Your task to perform on an android device: turn on improve location accuracy Image 0: 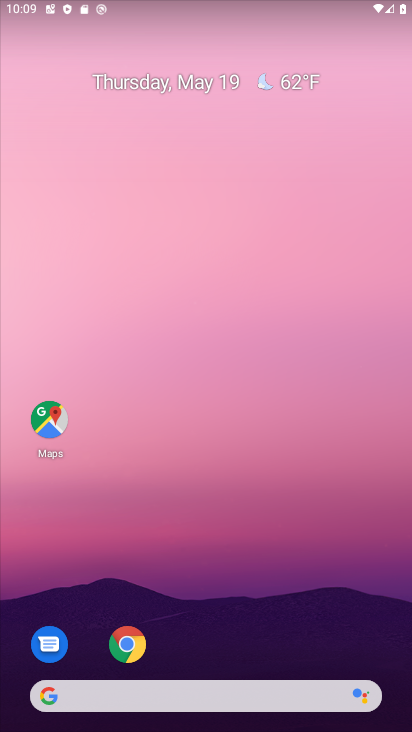
Step 0: drag from (264, 618) to (227, 185)
Your task to perform on an android device: turn on improve location accuracy Image 1: 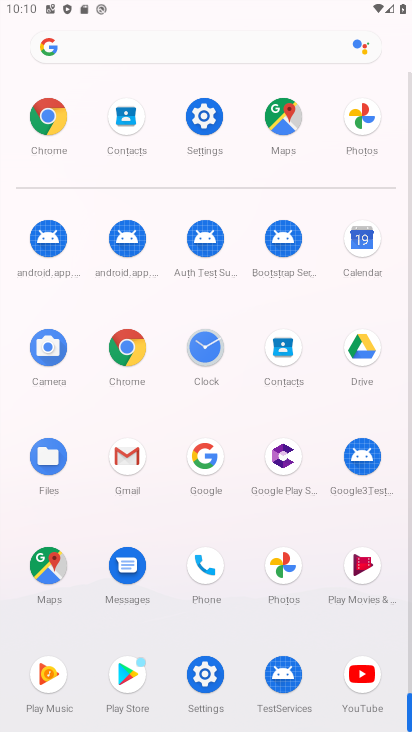
Step 1: click (201, 135)
Your task to perform on an android device: turn on improve location accuracy Image 2: 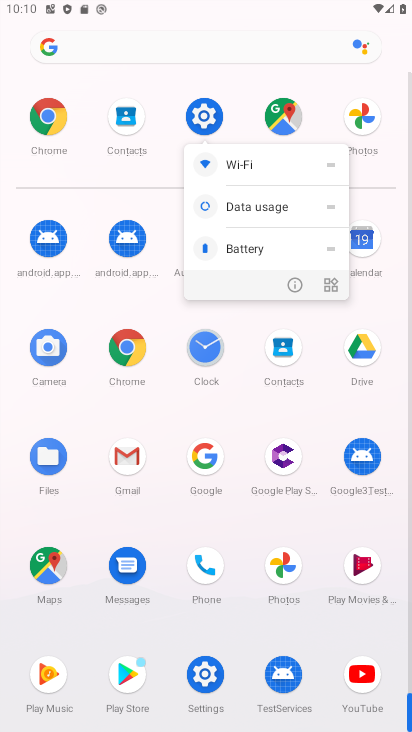
Step 2: click (205, 131)
Your task to perform on an android device: turn on improve location accuracy Image 3: 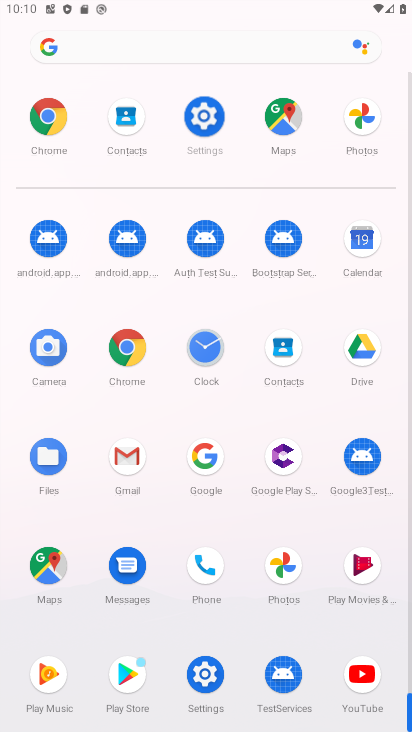
Step 3: click (205, 130)
Your task to perform on an android device: turn on improve location accuracy Image 4: 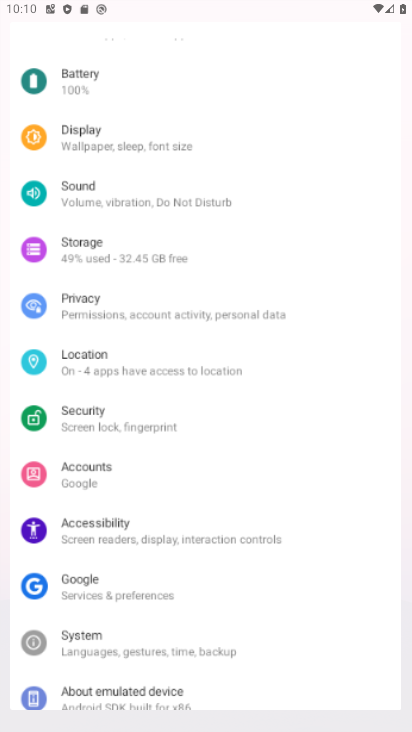
Step 4: click (205, 129)
Your task to perform on an android device: turn on improve location accuracy Image 5: 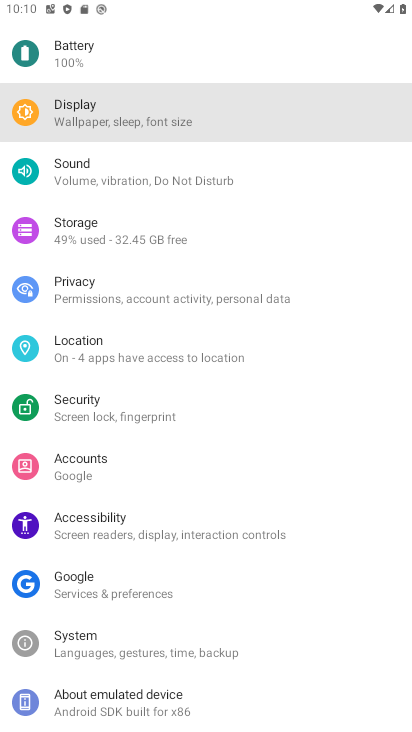
Step 5: click (205, 129)
Your task to perform on an android device: turn on improve location accuracy Image 6: 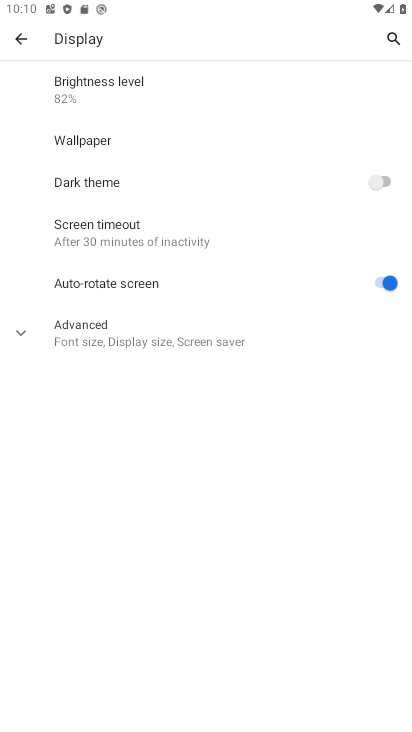
Step 6: click (18, 40)
Your task to perform on an android device: turn on improve location accuracy Image 7: 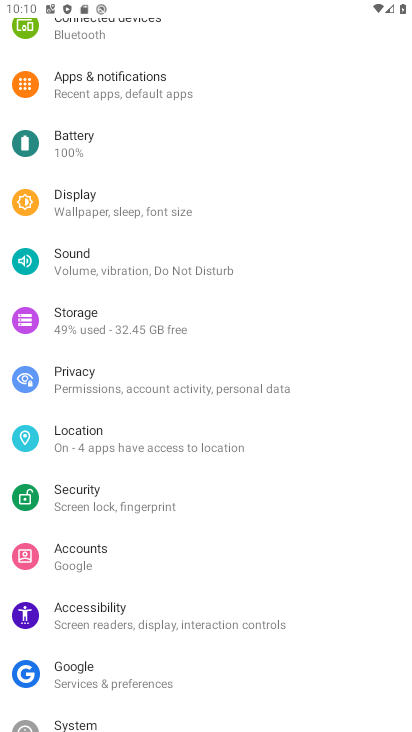
Step 7: click (96, 443)
Your task to perform on an android device: turn on improve location accuracy Image 8: 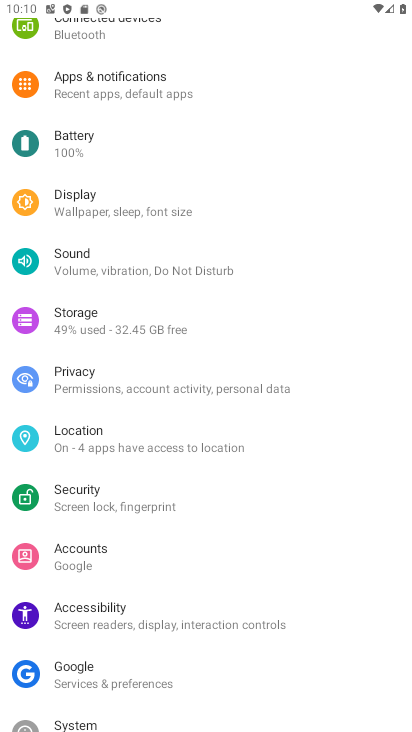
Step 8: click (96, 443)
Your task to perform on an android device: turn on improve location accuracy Image 9: 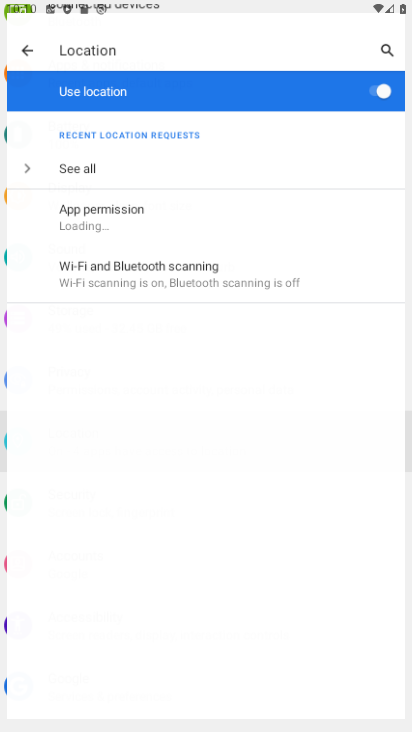
Step 9: click (96, 443)
Your task to perform on an android device: turn on improve location accuracy Image 10: 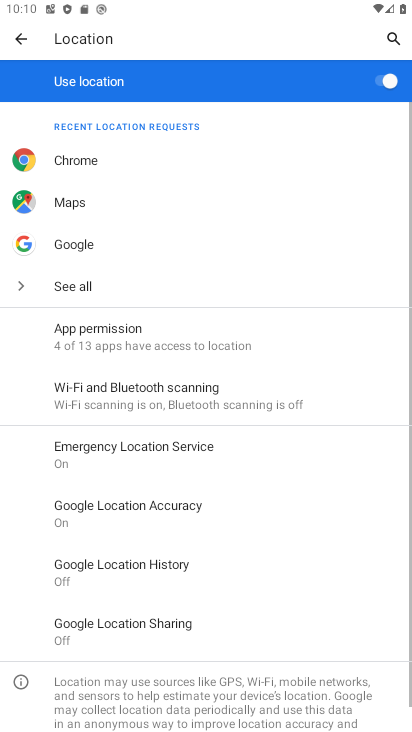
Step 10: click (99, 512)
Your task to perform on an android device: turn on improve location accuracy Image 11: 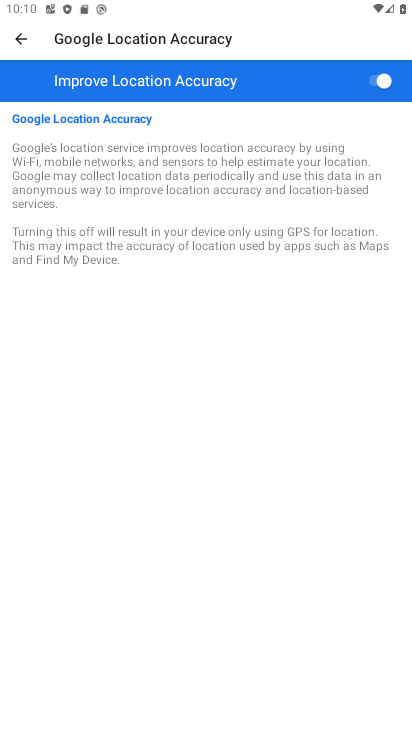
Step 11: task complete